Your task to perform on an android device: make emails show in primary in the gmail app Image 0: 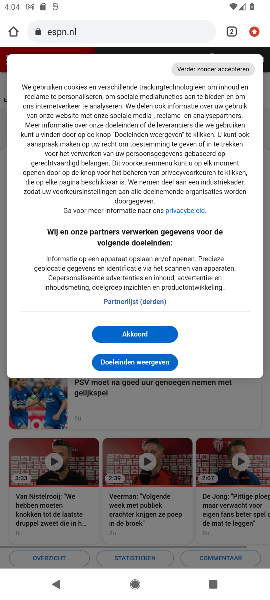
Step 0: press home button
Your task to perform on an android device: make emails show in primary in the gmail app Image 1: 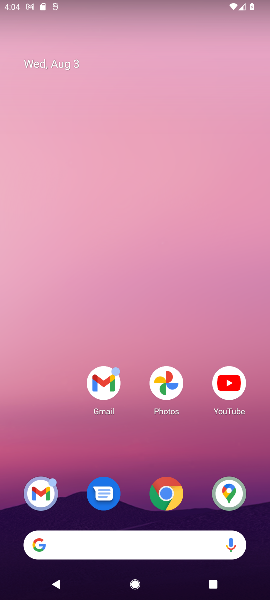
Step 1: drag from (57, 448) to (55, 106)
Your task to perform on an android device: make emails show in primary in the gmail app Image 2: 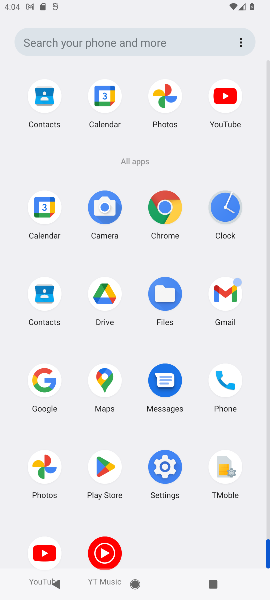
Step 2: click (226, 291)
Your task to perform on an android device: make emails show in primary in the gmail app Image 3: 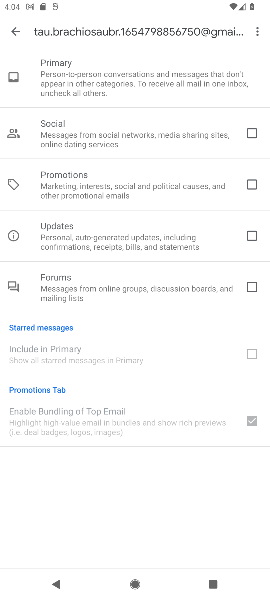
Step 3: task complete